Your task to perform on an android device: Open calendar and show me the fourth week of next month Image 0: 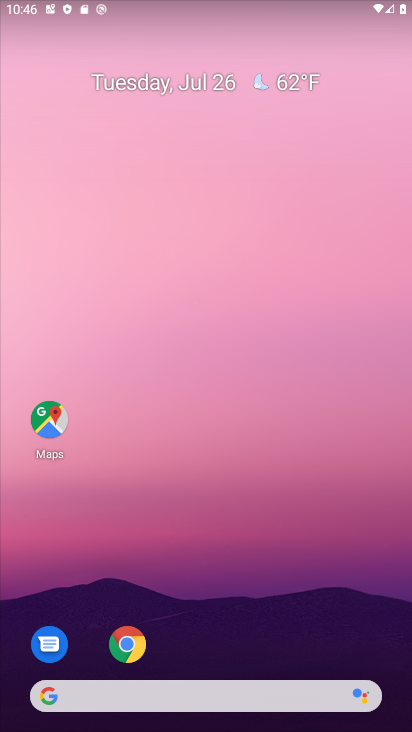
Step 0: drag from (348, 628) to (321, 291)
Your task to perform on an android device: Open calendar and show me the fourth week of next month Image 1: 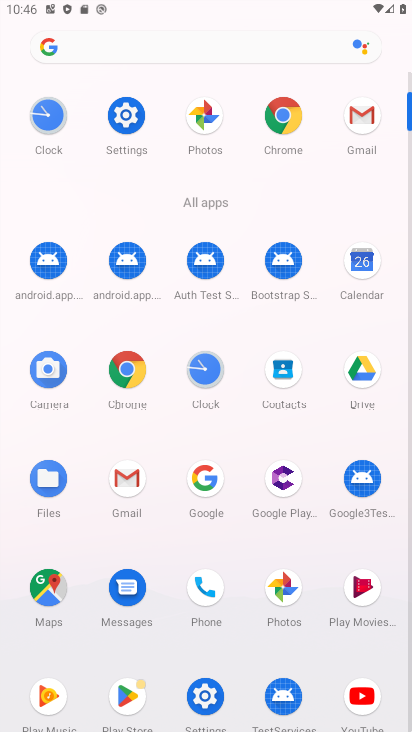
Step 1: click (365, 274)
Your task to perform on an android device: Open calendar and show me the fourth week of next month Image 2: 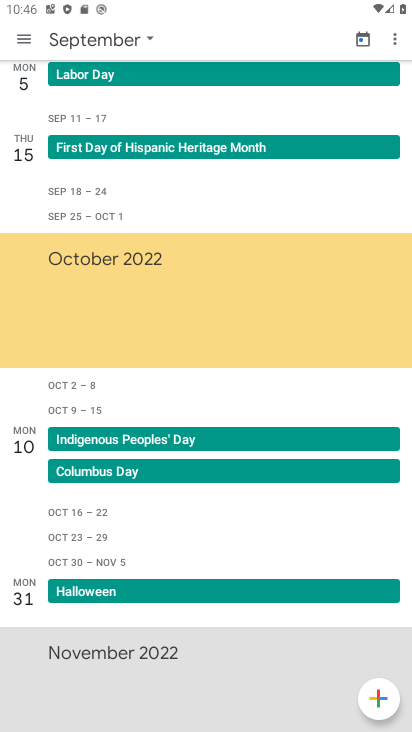
Step 2: drag from (144, 98) to (184, 466)
Your task to perform on an android device: Open calendar and show me the fourth week of next month Image 3: 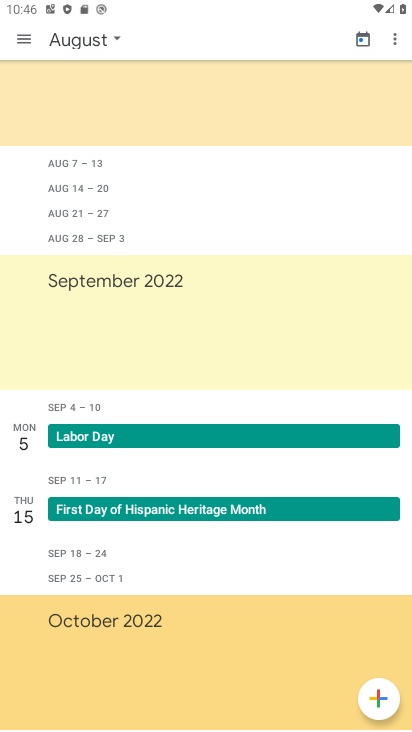
Step 3: click (22, 38)
Your task to perform on an android device: Open calendar and show me the fourth week of next month Image 4: 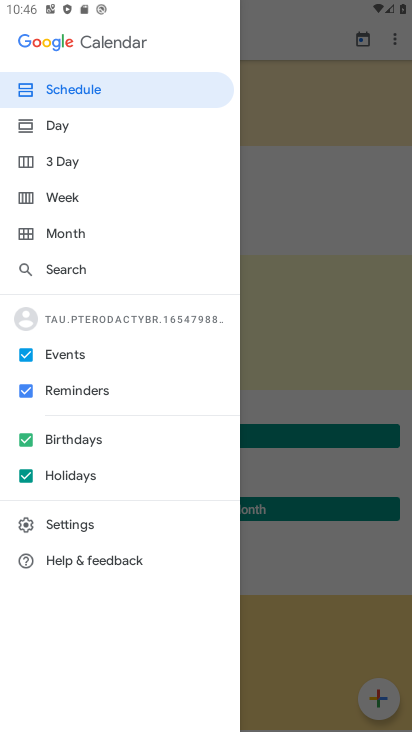
Step 4: click (66, 194)
Your task to perform on an android device: Open calendar and show me the fourth week of next month Image 5: 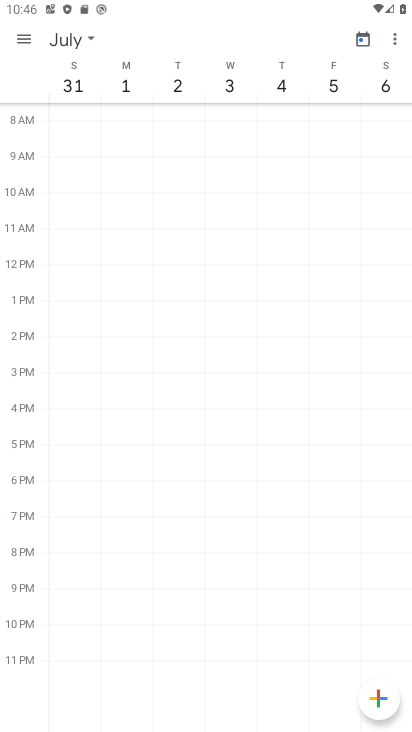
Step 5: click (82, 34)
Your task to perform on an android device: Open calendar and show me the fourth week of next month Image 6: 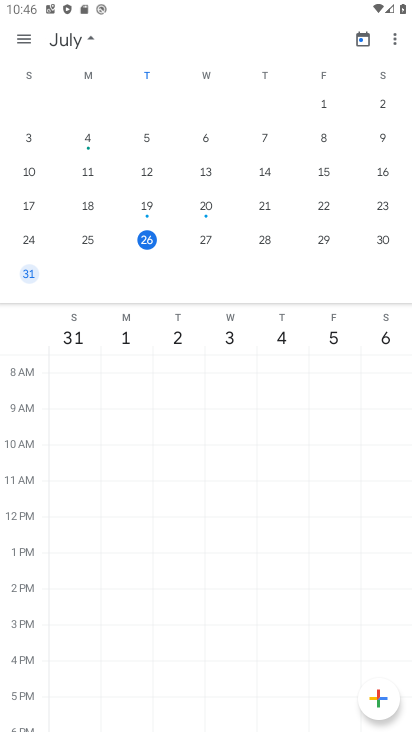
Step 6: drag from (352, 232) to (4, 197)
Your task to perform on an android device: Open calendar and show me the fourth week of next month Image 7: 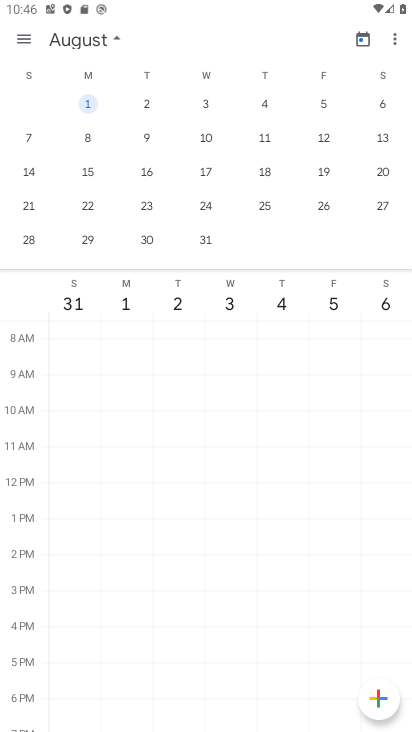
Step 7: click (208, 204)
Your task to perform on an android device: Open calendar and show me the fourth week of next month Image 8: 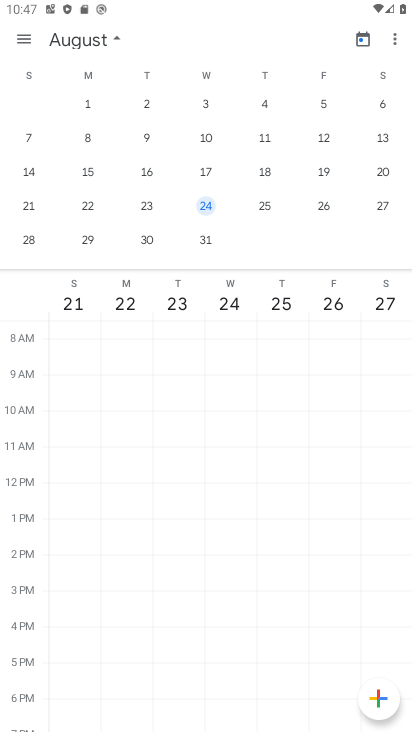
Step 8: task complete